Your task to perform on an android device: Find coffee shops on Maps Image 0: 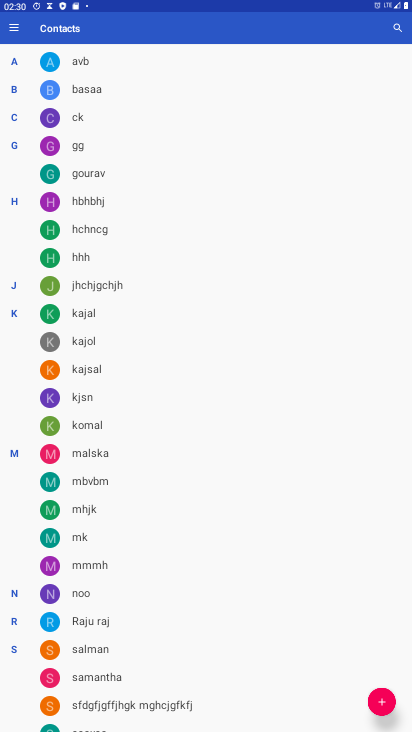
Step 0: press home button
Your task to perform on an android device: Find coffee shops on Maps Image 1: 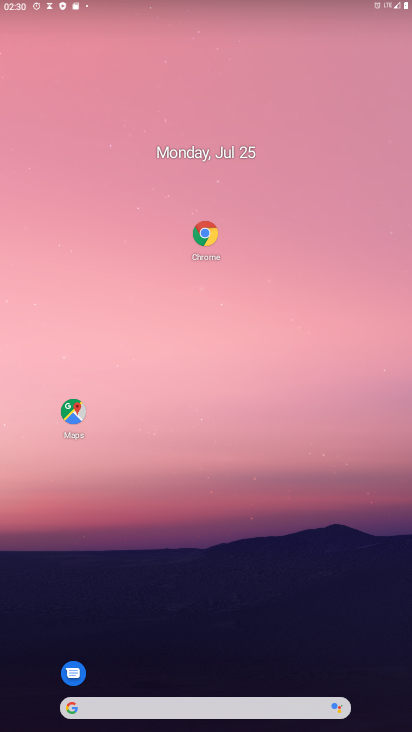
Step 1: drag from (265, 657) to (288, 65)
Your task to perform on an android device: Find coffee shops on Maps Image 2: 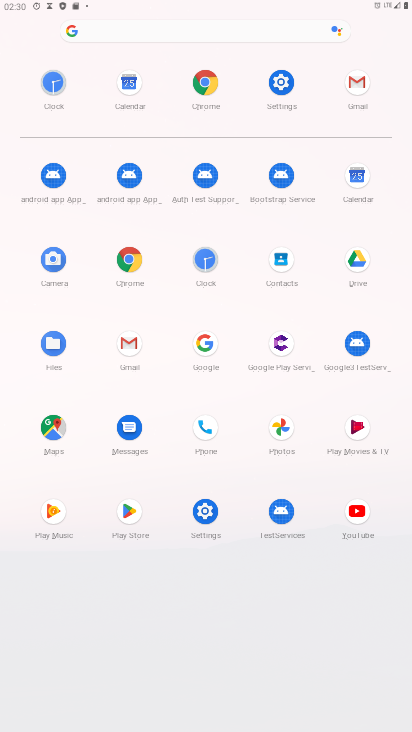
Step 2: click (58, 429)
Your task to perform on an android device: Find coffee shops on Maps Image 3: 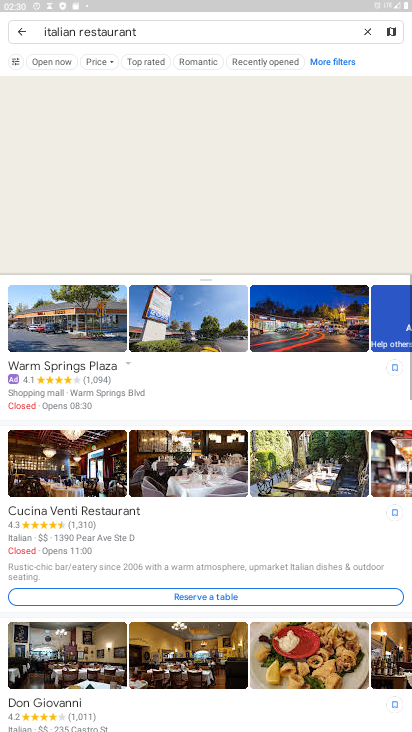
Step 3: click (363, 28)
Your task to perform on an android device: Find coffee shops on Maps Image 4: 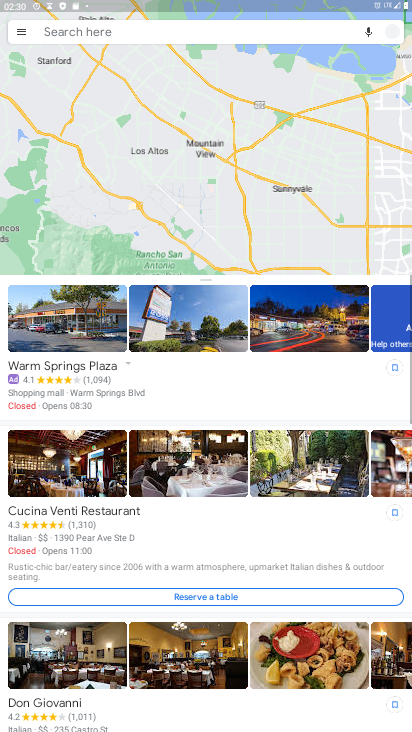
Step 4: click (216, 31)
Your task to perform on an android device: Find coffee shops on Maps Image 5: 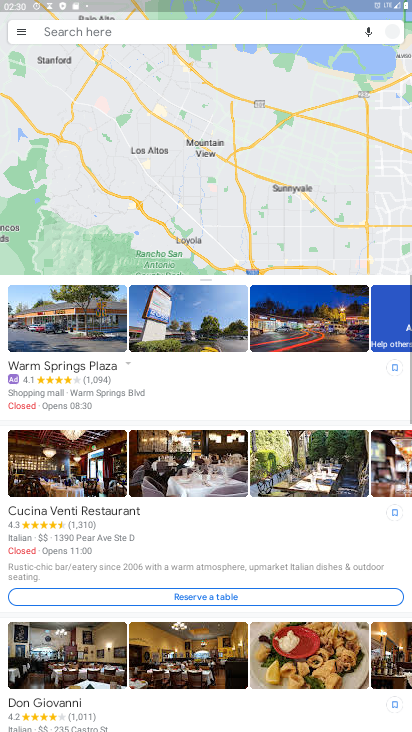
Step 5: click (216, 31)
Your task to perform on an android device: Find coffee shops on Maps Image 6: 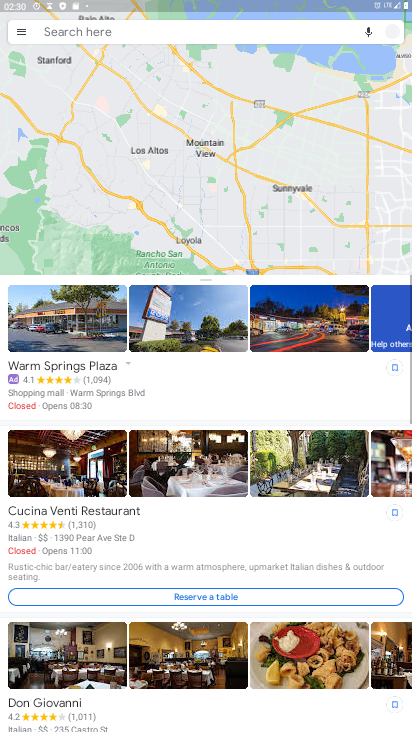
Step 6: click (216, 31)
Your task to perform on an android device: Find coffee shops on Maps Image 7: 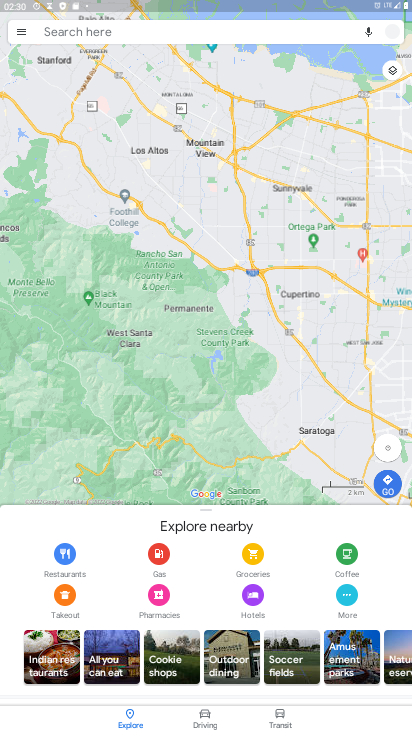
Step 7: click (216, 31)
Your task to perform on an android device: Find coffee shops on Maps Image 8: 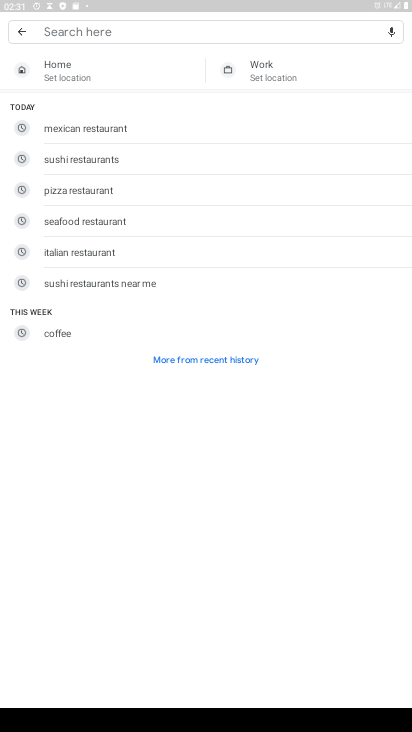
Step 8: type "coffee shops"
Your task to perform on an android device: Find coffee shops on Maps Image 9: 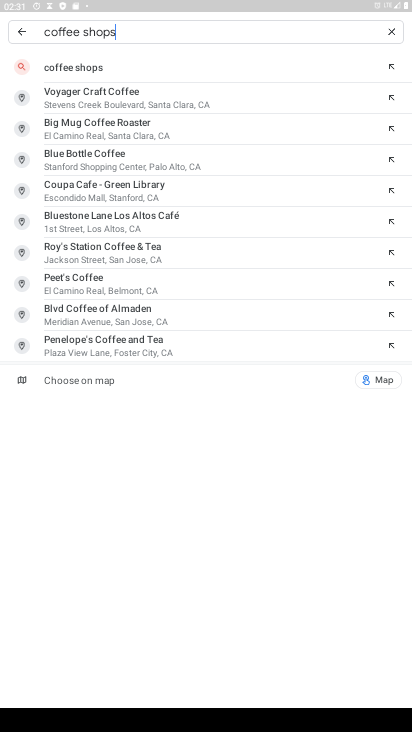
Step 9: click (81, 70)
Your task to perform on an android device: Find coffee shops on Maps Image 10: 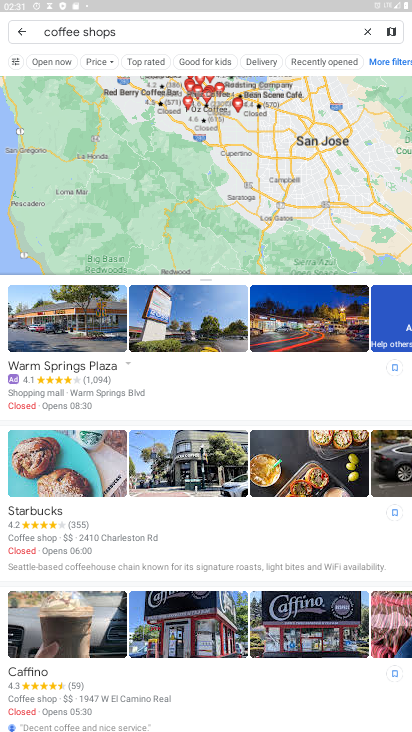
Step 10: task complete